Your task to perform on an android device: Open notification settings Image 0: 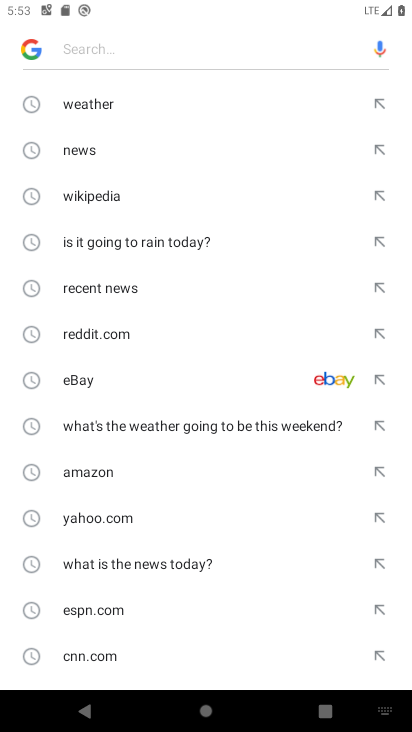
Step 0: press home button
Your task to perform on an android device: Open notification settings Image 1: 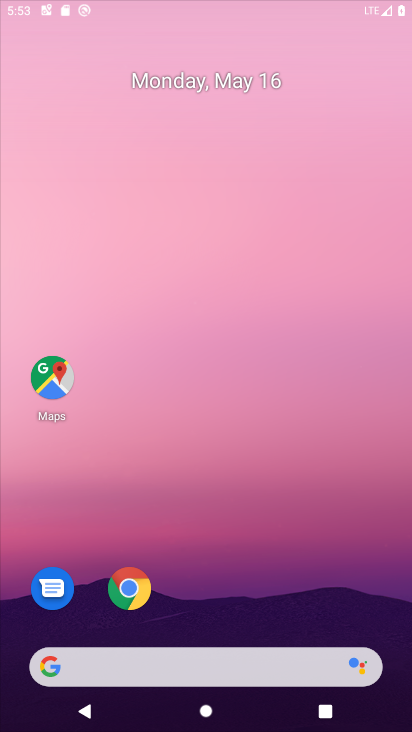
Step 1: drag from (289, 520) to (133, 11)
Your task to perform on an android device: Open notification settings Image 2: 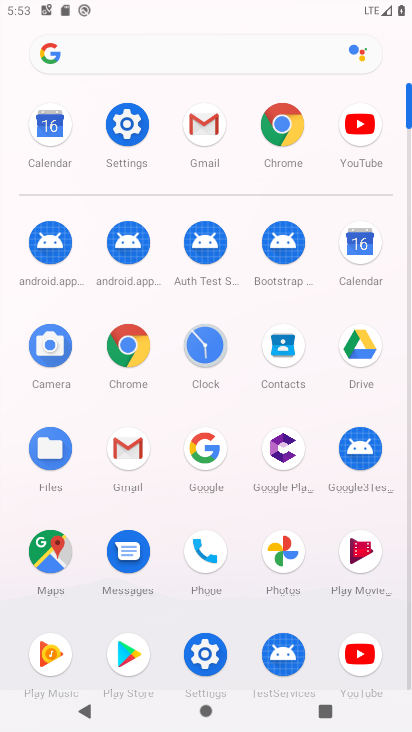
Step 2: click (125, 90)
Your task to perform on an android device: Open notification settings Image 3: 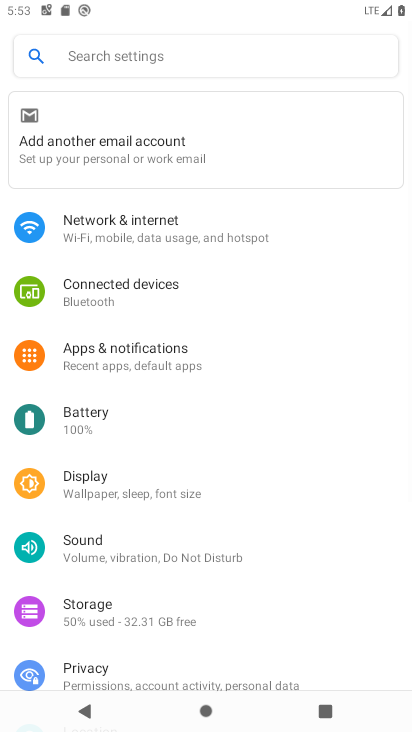
Step 3: click (204, 366)
Your task to perform on an android device: Open notification settings Image 4: 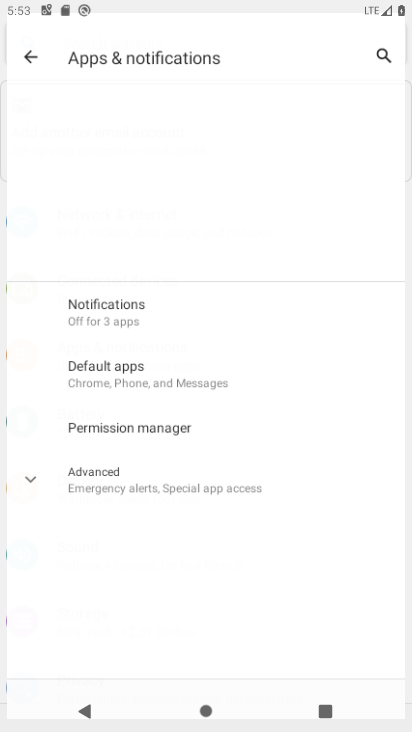
Step 4: task complete